Your task to perform on an android device: Go to Reddit.com Image 0: 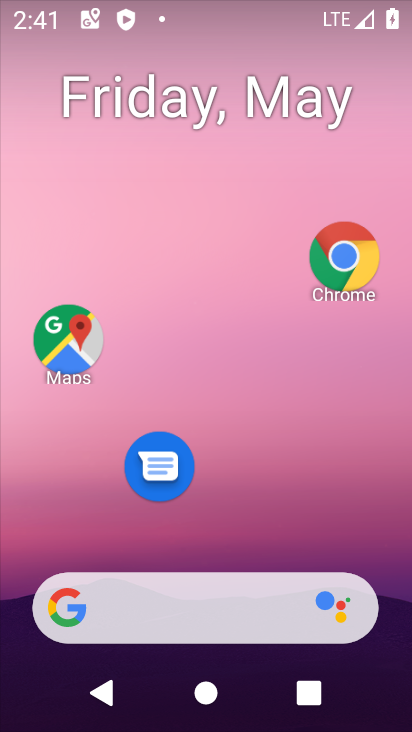
Step 0: drag from (273, 521) to (232, 103)
Your task to perform on an android device: Go to Reddit.com Image 1: 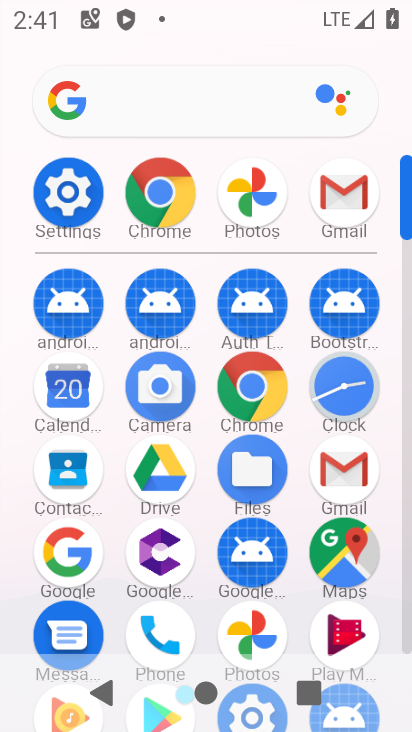
Step 1: click (243, 384)
Your task to perform on an android device: Go to Reddit.com Image 2: 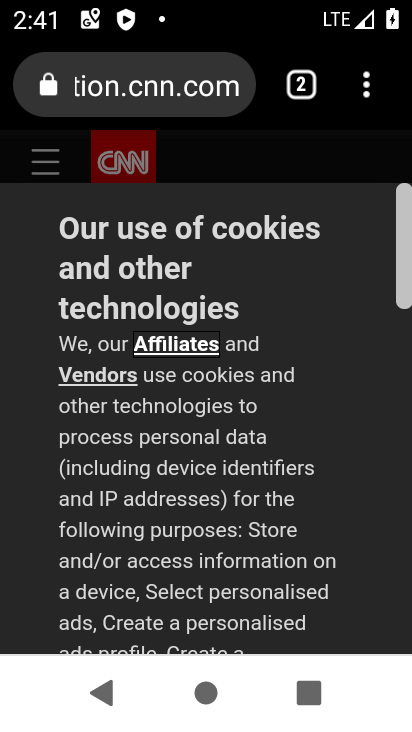
Step 2: click (151, 93)
Your task to perform on an android device: Go to Reddit.com Image 3: 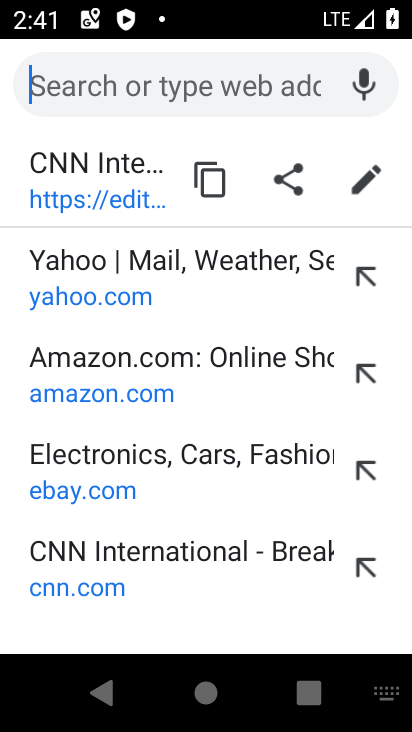
Step 3: type " Reddit.com"
Your task to perform on an android device: Go to Reddit.com Image 4: 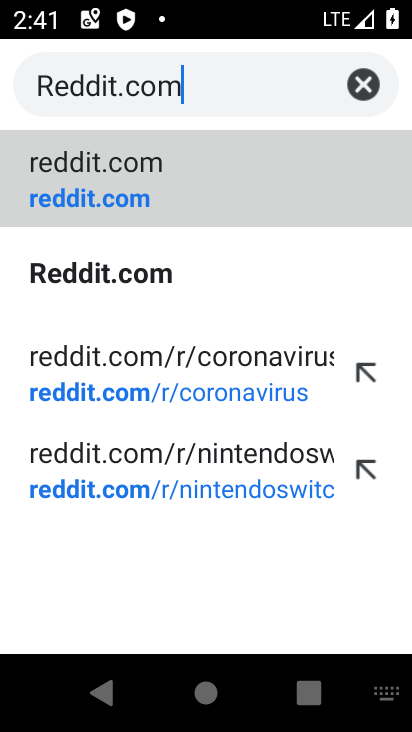
Step 4: click (79, 197)
Your task to perform on an android device: Go to Reddit.com Image 5: 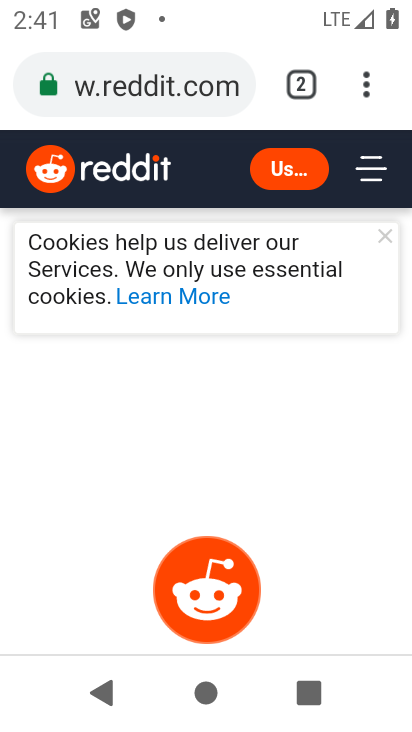
Step 5: task complete